Your task to perform on an android device: open app "PlayWell" (install if not already installed), go to login, and select forgot password Image 0: 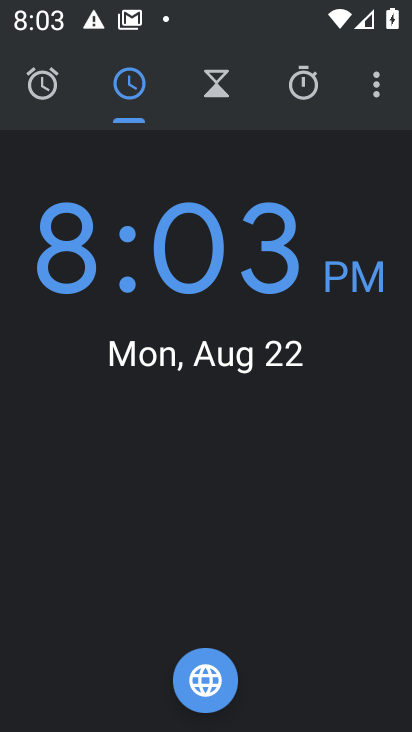
Step 0: press home button
Your task to perform on an android device: open app "PlayWell" (install if not already installed), go to login, and select forgot password Image 1: 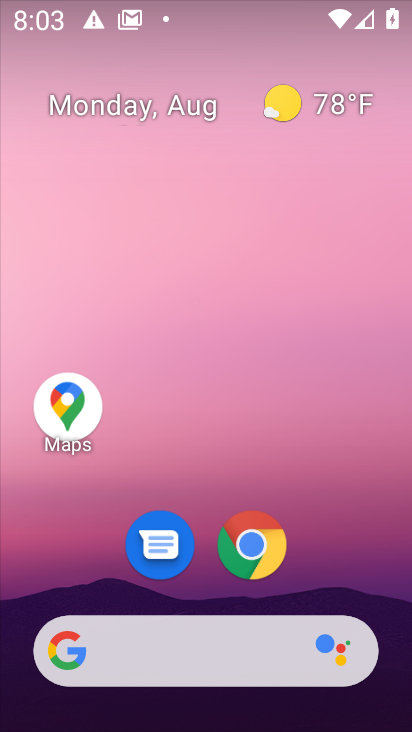
Step 1: drag from (356, 487) to (357, 110)
Your task to perform on an android device: open app "PlayWell" (install if not already installed), go to login, and select forgot password Image 2: 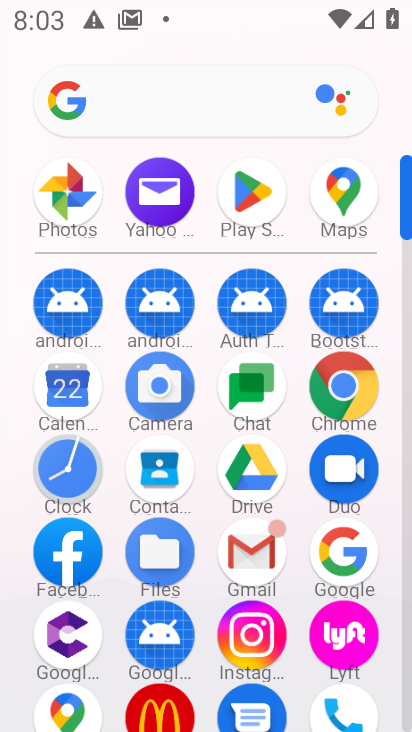
Step 2: click (245, 187)
Your task to perform on an android device: open app "PlayWell" (install if not already installed), go to login, and select forgot password Image 3: 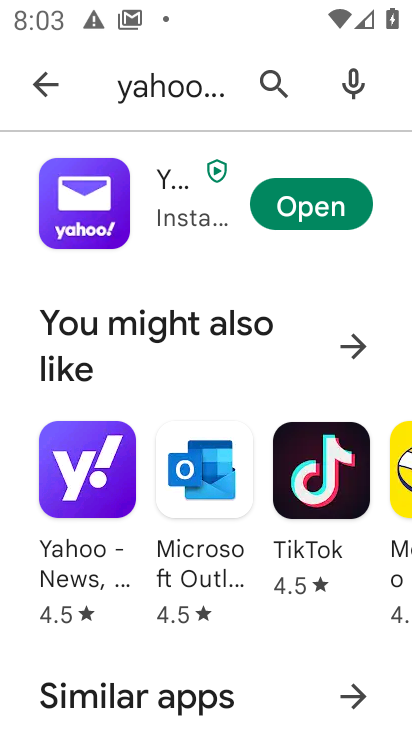
Step 3: press back button
Your task to perform on an android device: open app "PlayWell" (install if not already installed), go to login, and select forgot password Image 4: 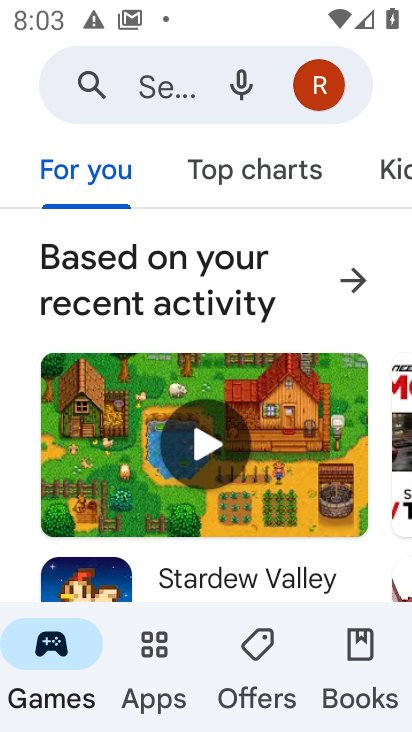
Step 4: click (147, 97)
Your task to perform on an android device: open app "PlayWell" (install if not already installed), go to login, and select forgot password Image 5: 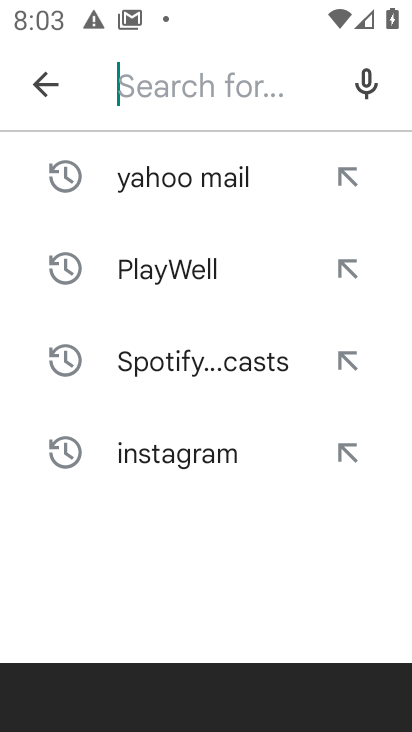
Step 5: click (137, 88)
Your task to perform on an android device: open app "PlayWell" (install if not already installed), go to login, and select forgot password Image 6: 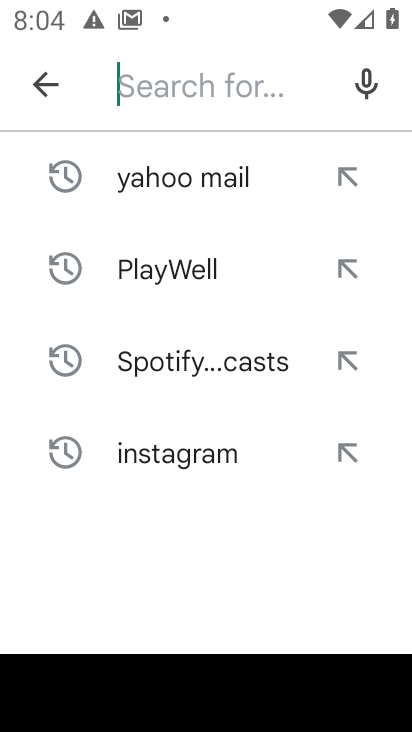
Step 6: click (166, 264)
Your task to perform on an android device: open app "PlayWell" (install if not already installed), go to login, and select forgot password Image 7: 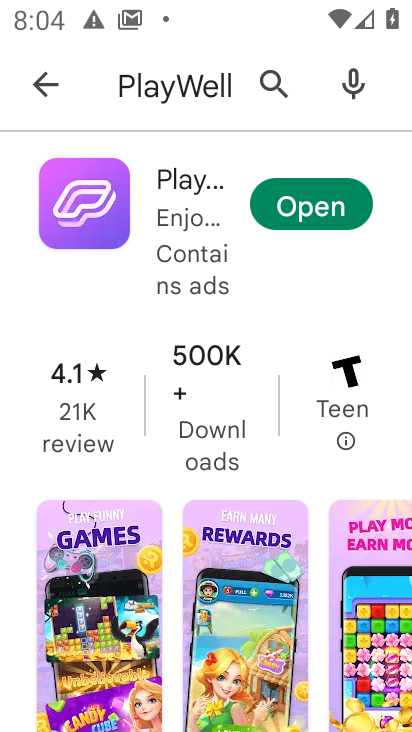
Step 7: click (308, 211)
Your task to perform on an android device: open app "PlayWell" (install if not already installed), go to login, and select forgot password Image 8: 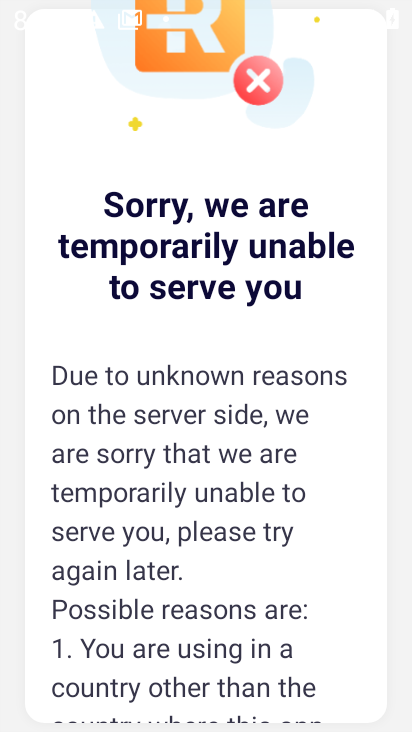
Step 8: task complete